Your task to perform on an android device: Search for seafood restaurants on Google Maps Image 0: 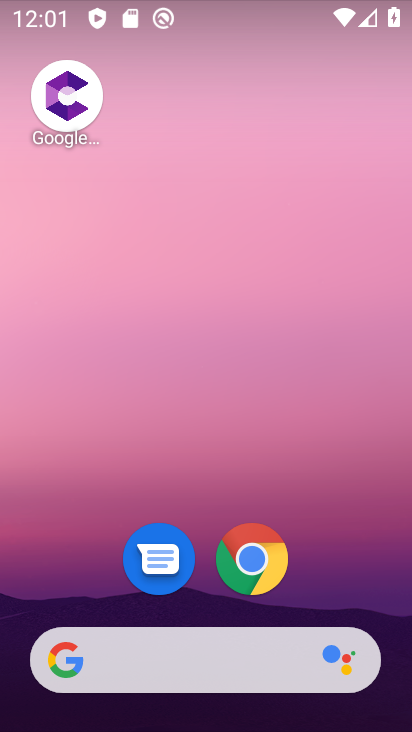
Step 0: drag from (354, 573) to (306, 94)
Your task to perform on an android device: Search for seafood restaurants on Google Maps Image 1: 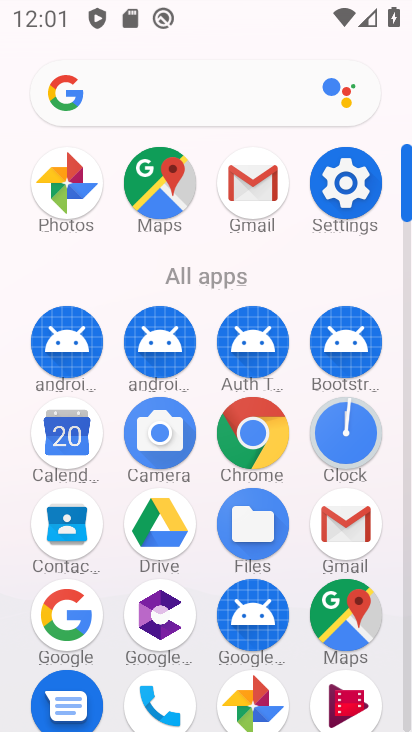
Step 1: click (156, 205)
Your task to perform on an android device: Search for seafood restaurants on Google Maps Image 2: 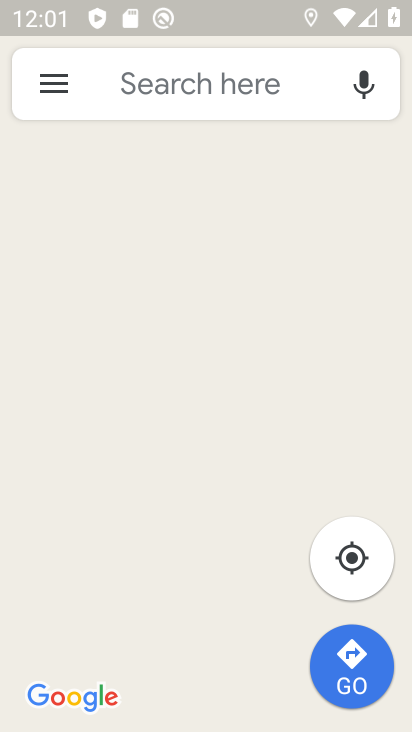
Step 2: click (225, 87)
Your task to perform on an android device: Search for seafood restaurants on Google Maps Image 3: 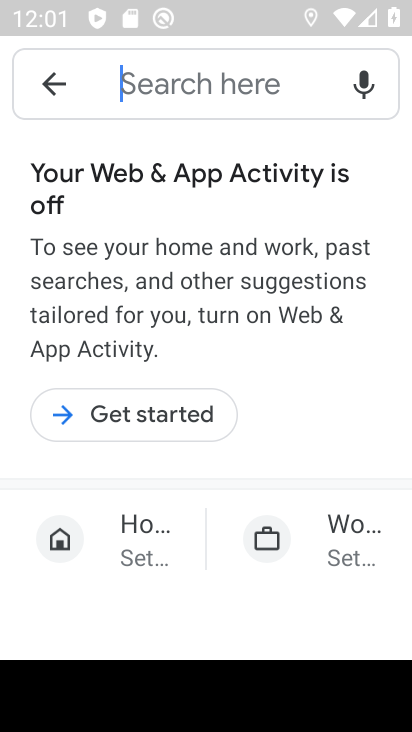
Step 3: type "seafood"
Your task to perform on an android device: Search for seafood restaurants on Google Maps Image 4: 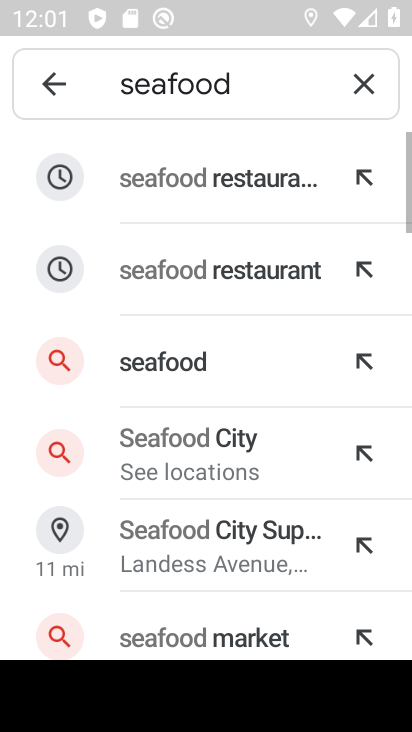
Step 4: click (265, 163)
Your task to perform on an android device: Search for seafood restaurants on Google Maps Image 5: 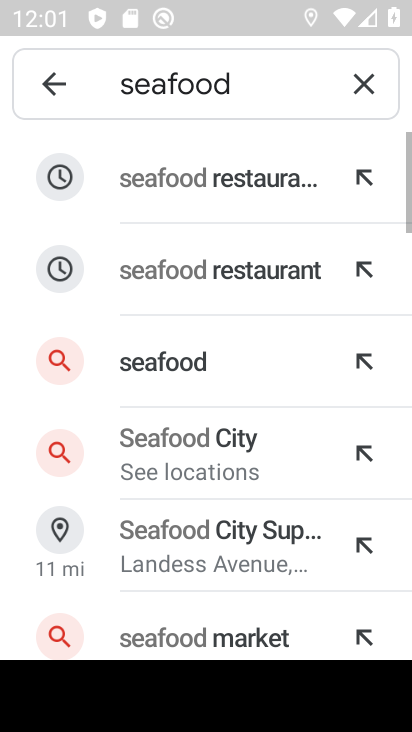
Step 5: task complete